Your task to perform on an android device: Open the Play Movies app and select the watchlist tab. Image 0: 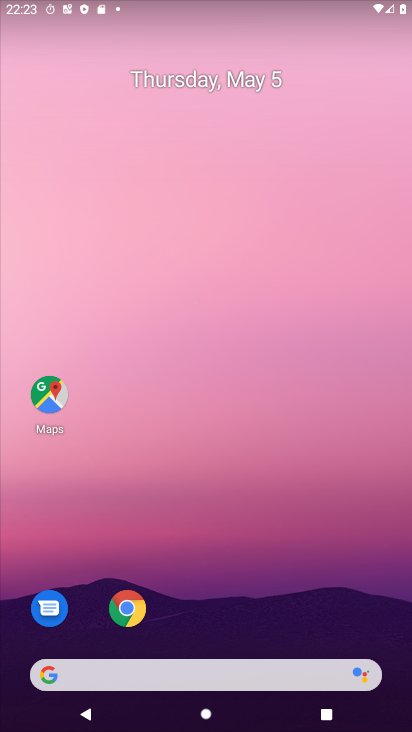
Step 0: drag from (264, 580) to (316, 15)
Your task to perform on an android device: Open the Play Movies app and select the watchlist tab. Image 1: 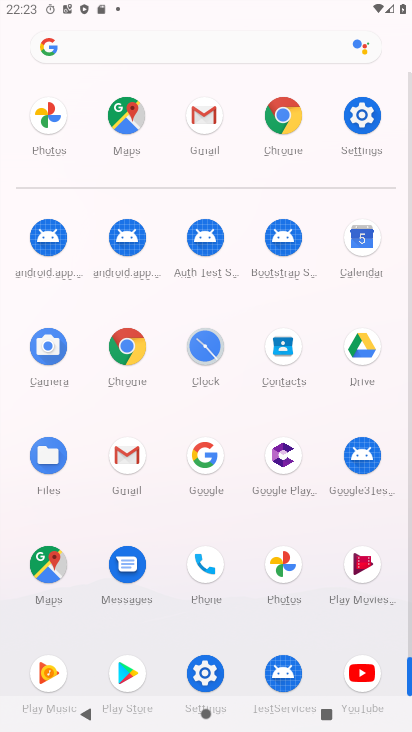
Step 1: drag from (310, 638) to (318, 140)
Your task to perform on an android device: Open the Play Movies app and select the watchlist tab. Image 2: 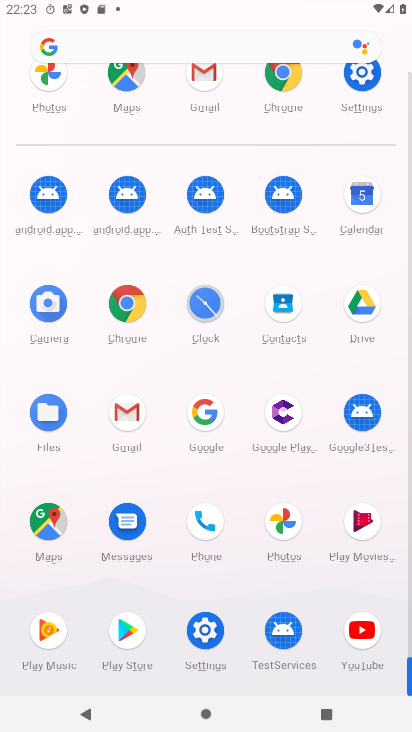
Step 2: click (366, 529)
Your task to perform on an android device: Open the Play Movies app and select the watchlist tab. Image 3: 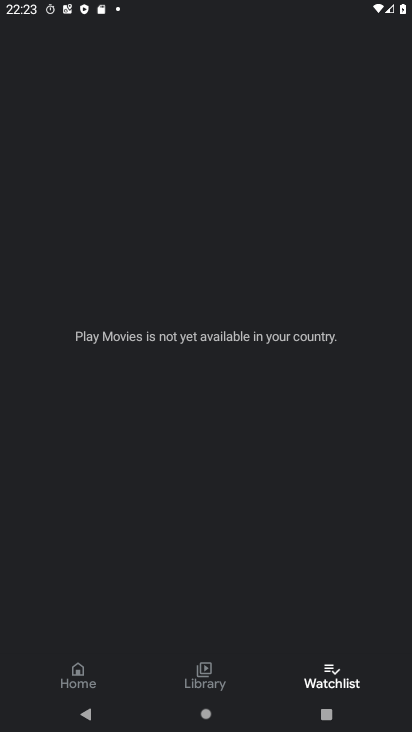
Step 3: task complete